Your task to perform on an android device: add a label to a message in the gmail app Image 0: 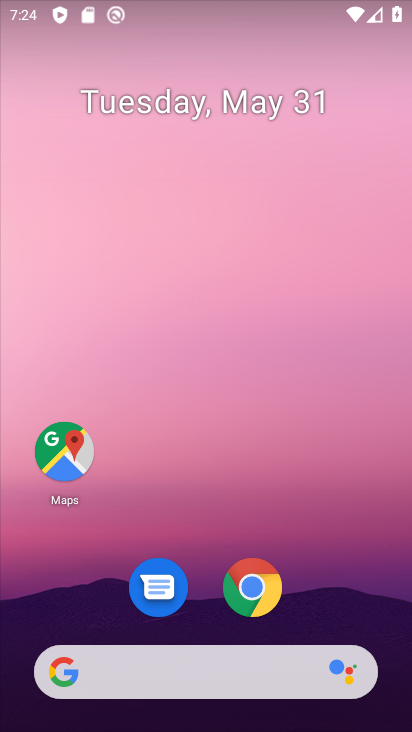
Step 0: drag from (218, 621) to (257, 59)
Your task to perform on an android device: add a label to a message in the gmail app Image 1: 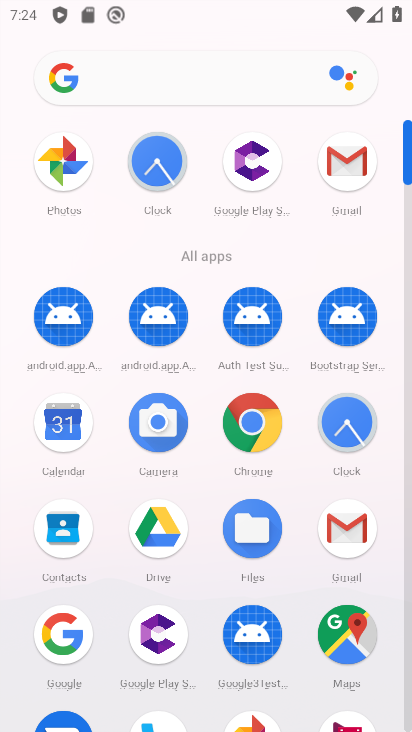
Step 1: click (343, 546)
Your task to perform on an android device: add a label to a message in the gmail app Image 2: 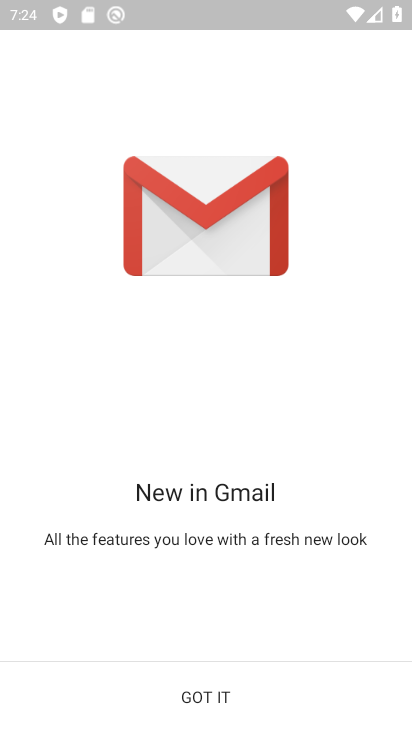
Step 2: click (214, 700)
Your task to perform on an android device: add a label to a message in the gmail app Image 3: 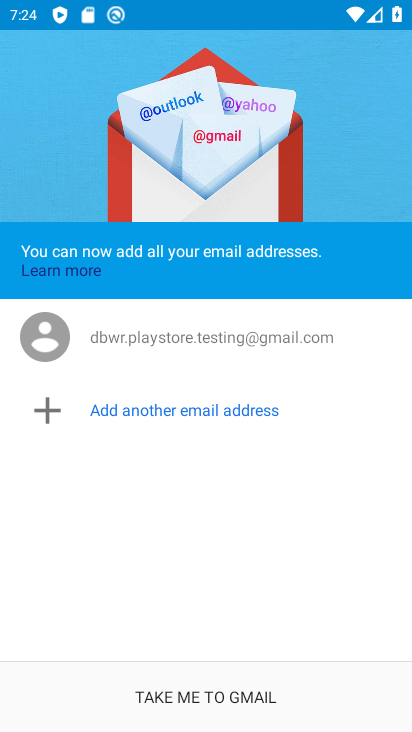
Step 3: click (235, 707)
Your task to perform on an android device: add a label to a message in the gmail app Image 4: 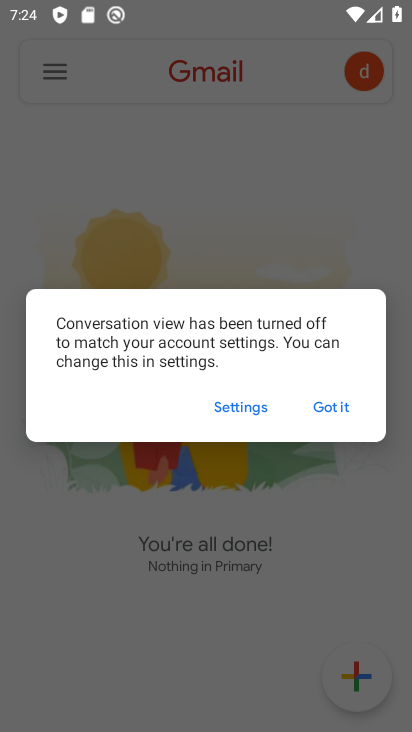
Step 4: click (327, 405)
Your task to perform on an android device: add a label to a message in the gmail app Image 5: 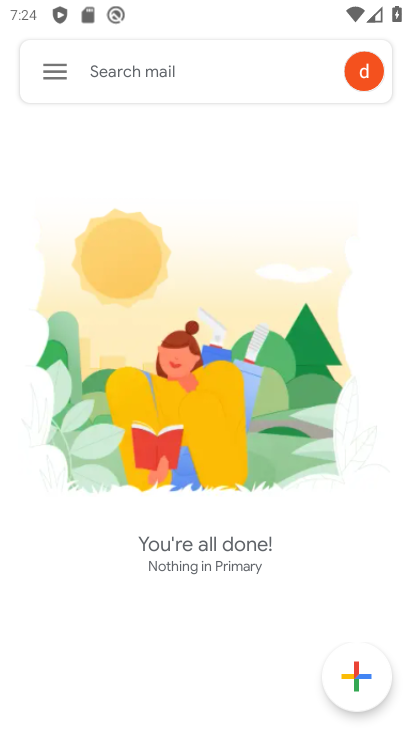
Step 5: click (53, 72)
Your task to perform on an android device: add a label to a message in the gmail app Image 6: 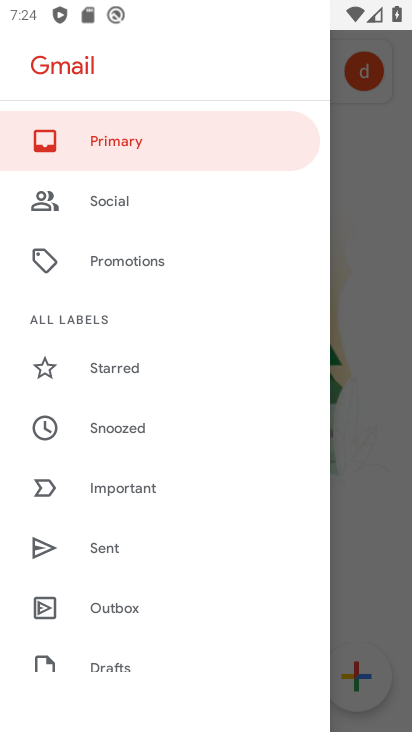
Step 6: drag from (143, 605) to (151, 392)
Your task to perform on an android device: add a label to a message in the gmail app Image 7: 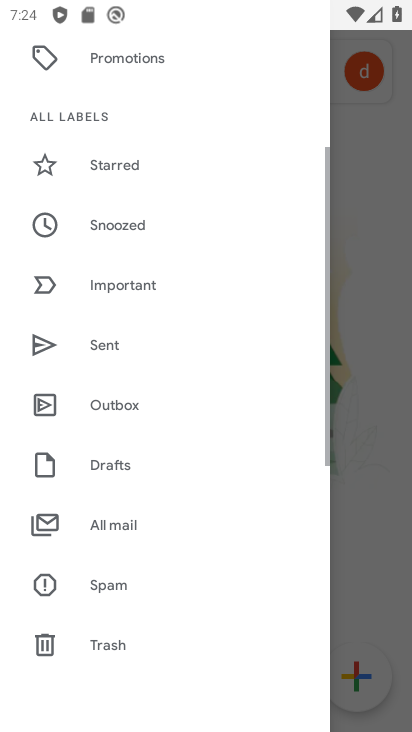
Step 7: click (112, 523)
Your task to perform on an android device: add a label to a message in the gmail app Image 8: 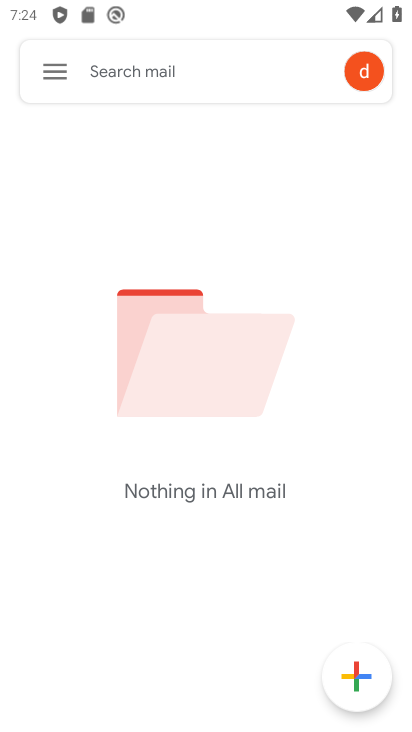
Step 8: task complete